Your task to perform on an android device: toggle pop-ups in chrome Image 0: 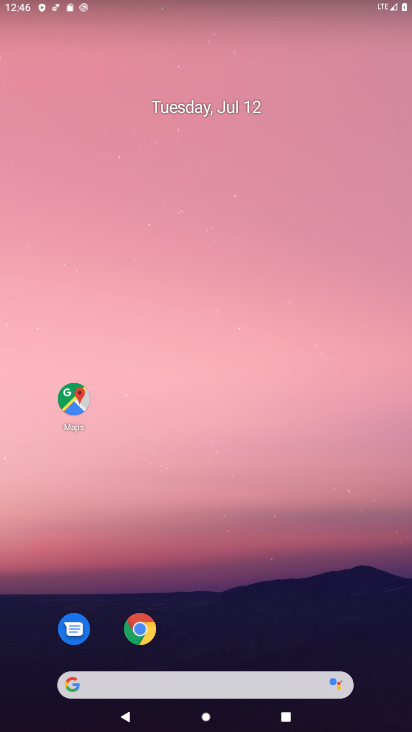
Step 0: click (135, 630)
Your task to perform on an android device: toggle pop-ups in chrome Image 1: 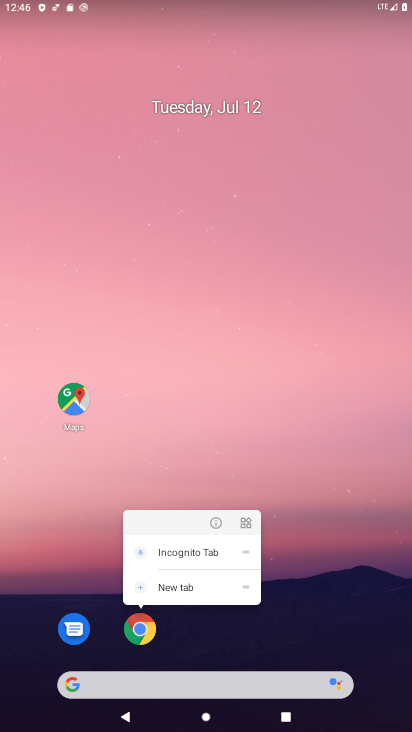
Step 1: click (145, 634)
Your task to perform on an android device: toggle pop-ups in chrome Image 2: 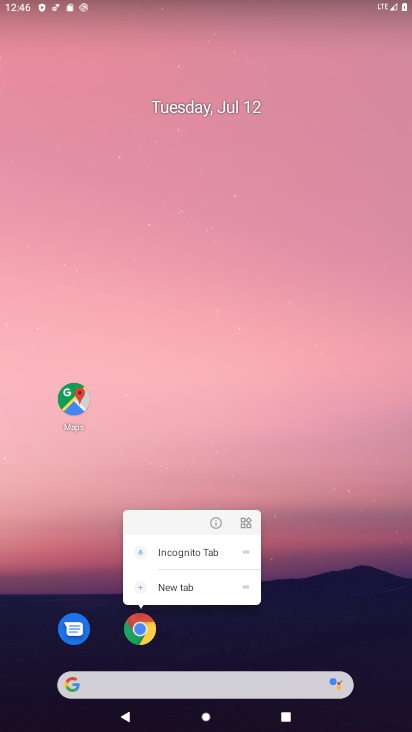
Step 2: click (141, 635)
Your task to perform on an android device: toggle pop-ups in chrome Image 3: 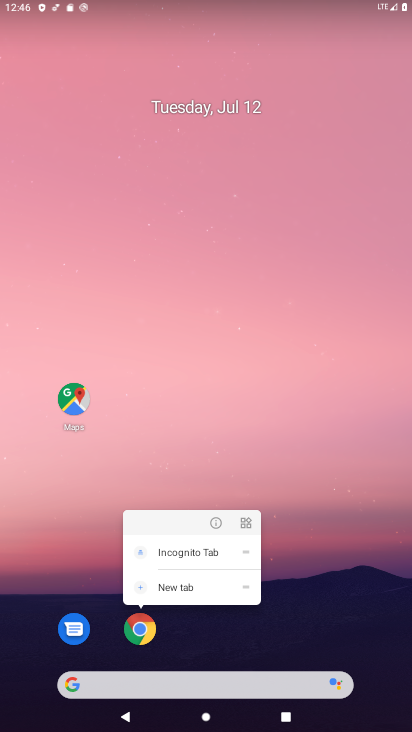
Step 3: task complete